Your task to perform on an android device: turn on data saver in the chrome app Image 0: 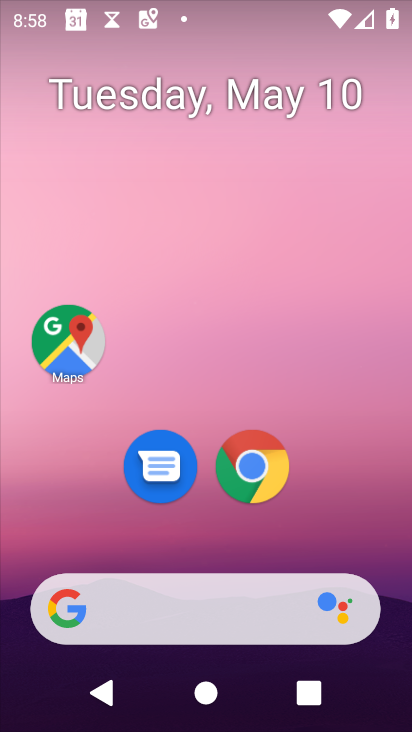
Step 0: click (252, 473)
Your task to perform on an android device: turn on data saver in the chrome app Image 1: 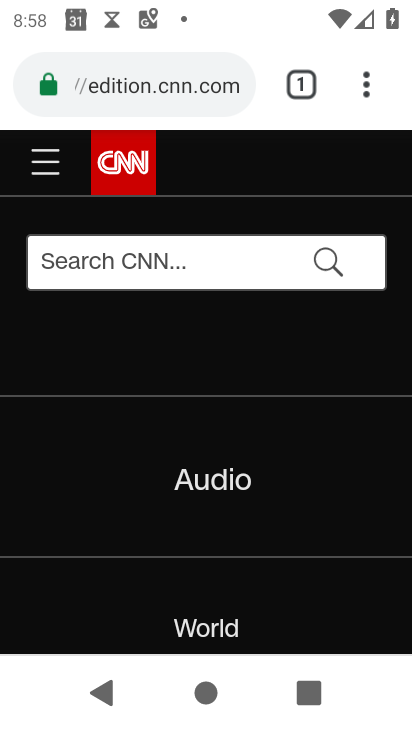
Step 1: click (368, 79)
Your task to perform on an android device: turn on data saver in the chrome app Image 2: 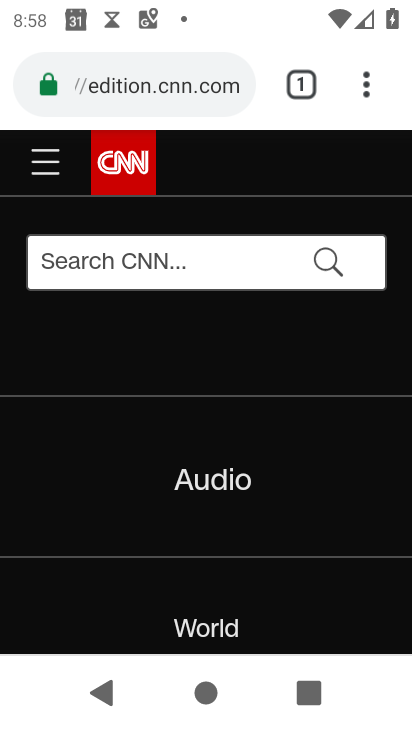
Step 2: click (366, 94)
Your task to perform on an android device: turn on data saver in the chrome app Image 3: 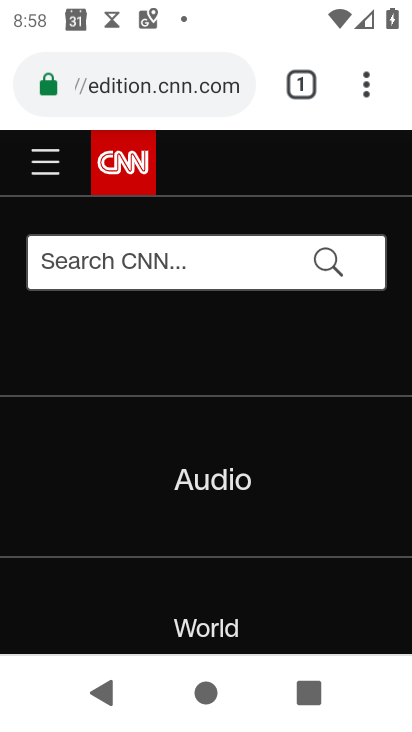
Step 3: click (367, 94)
Your task to perform on an android device: turn on data saver in the chrome app Image 4: 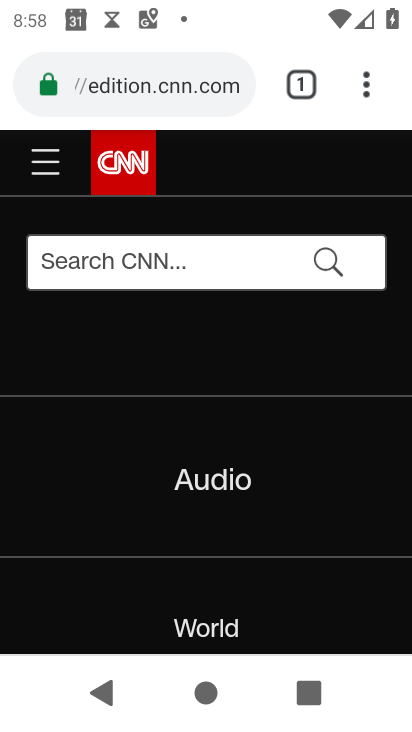
Step 4: click (359, 89)
Your task to perform on an android device: turn on data saver in the chrome app Image 5: 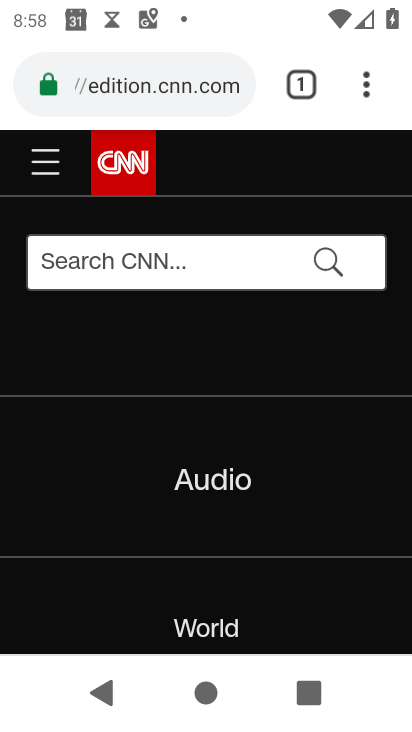
Step 5: click (387, 63)
Your task to perform on an android device: turn on data saver in the chrome app Image 6: 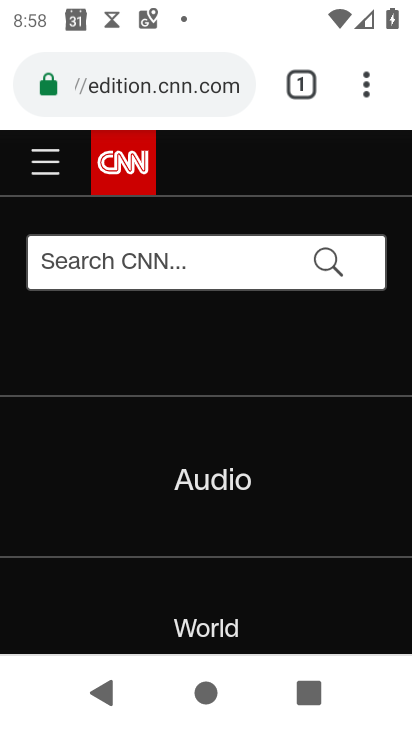
Step 6: click (409, 107)
Your task to perform on an android device: turn on data saver in the chrome app Image 7: 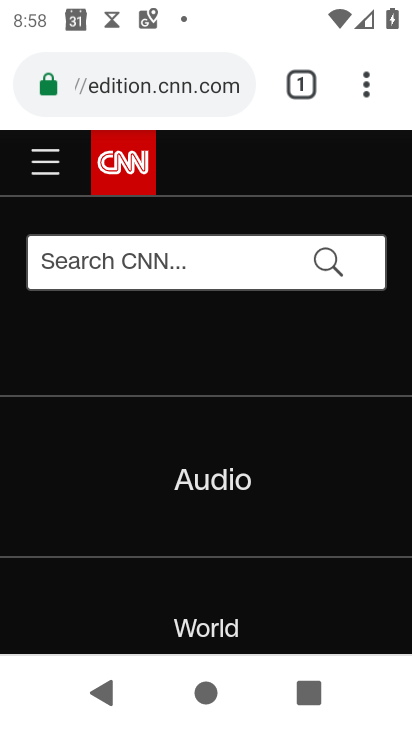
Step 7: click (409, 107)
Your task to perform on an android device: turn on data saver in the chrome app Image 8: 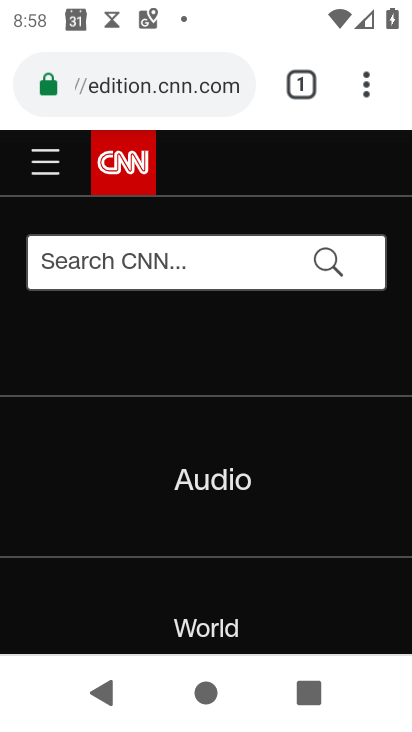
Step 8: click (406, 125)
Your task to perform on an android device: turn on data saver in the chrome app Image 9: 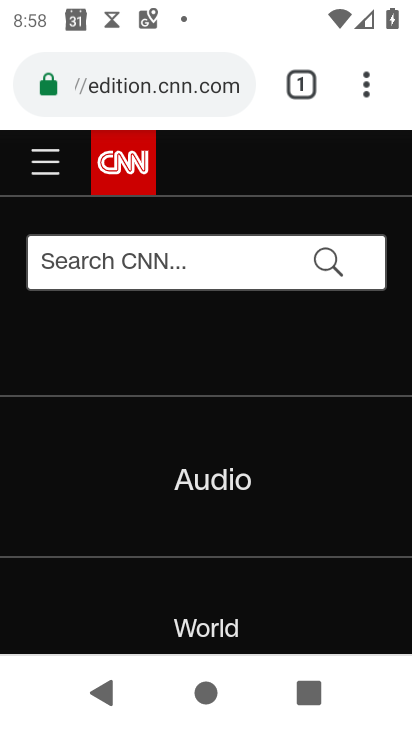
Step 9: click (364, 96)
Your task to perform on an android device: turn on data saver in the chrome app Image 10: 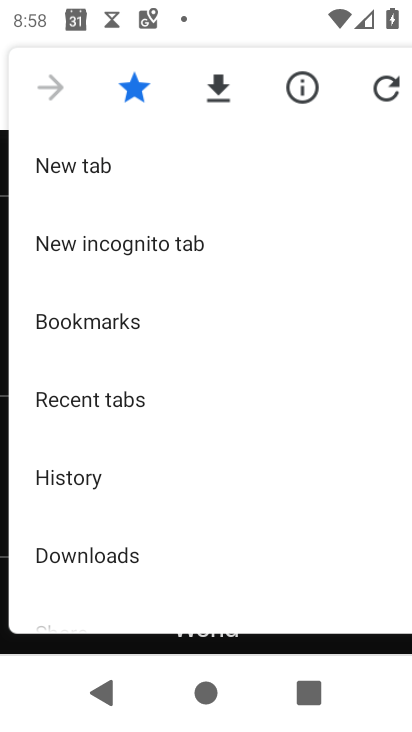
Step 10: drag from (165, 544) to (187, 197)
Your task to perform on an android device: turn on data saver in the chrome app Image 11: 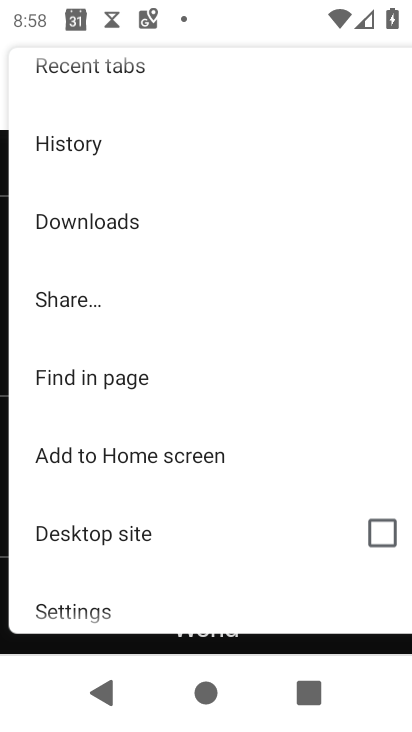
Step 11: drag from (183, 553) to (231, 180)
Your task to perform on an android device: turn on data saver in the chrome app Image 12: 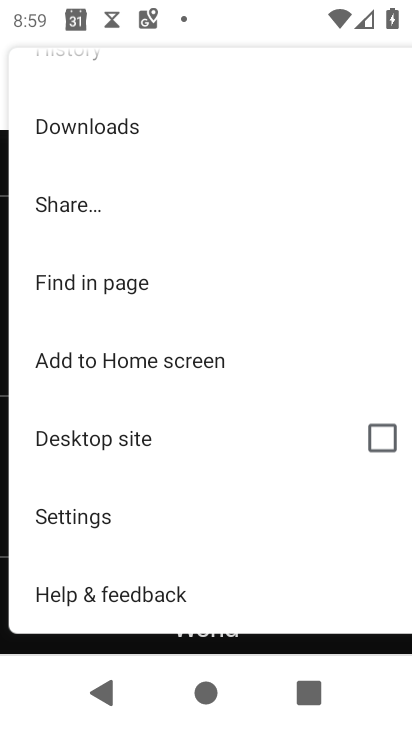
Step 12: click (127, 504)
Your task to perform on an android device: turn on data saver in the chrome app Image 13: 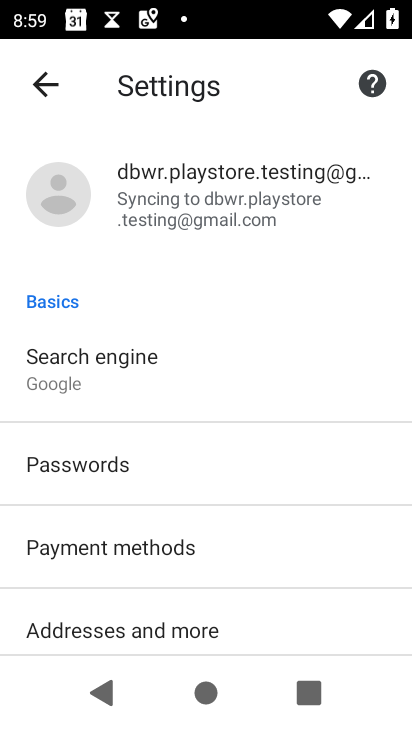
Step 13: drag from (202, 585) to (233, 437)
Your task to perform on an android device: turn on data saver in the chrome app Image 14: 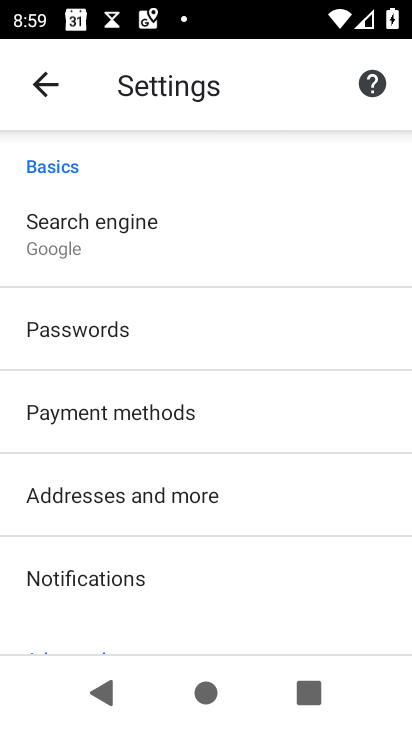
Step 14: drag from (272, 631) to (285, 520)
Your task to perform on an android device: turn on data saver in the chrome app Image 15: 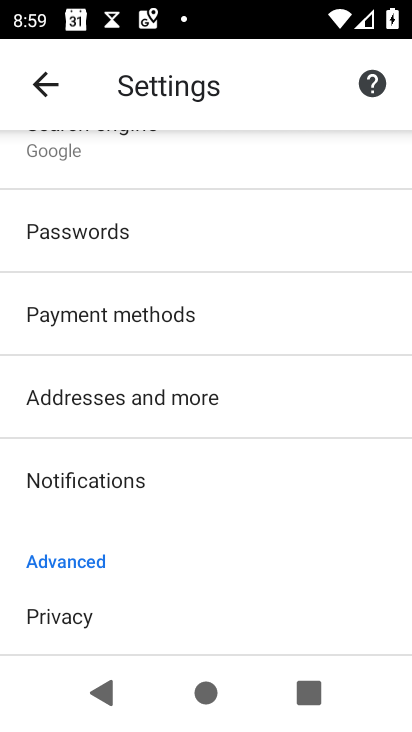
Step 15: drag from (250, 583) to (308, 446)
Your task to perform on an android device: turn on data saver in the chrome app Image 16: 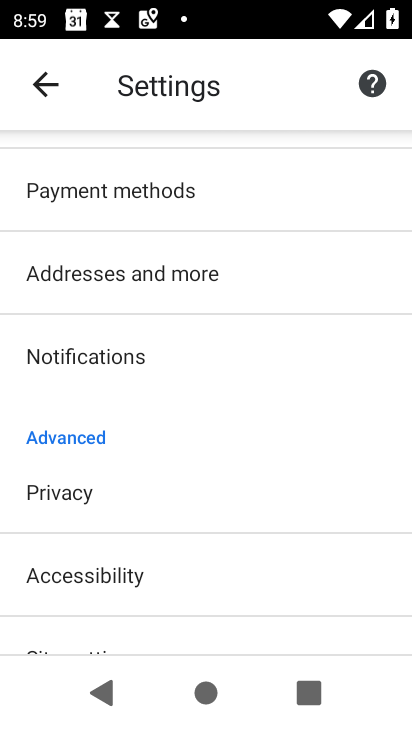
Step 16: drag from (233, 554) to (257, 446)
Your task to perform on an android device: turn on data saver in the chrome app Image 17: 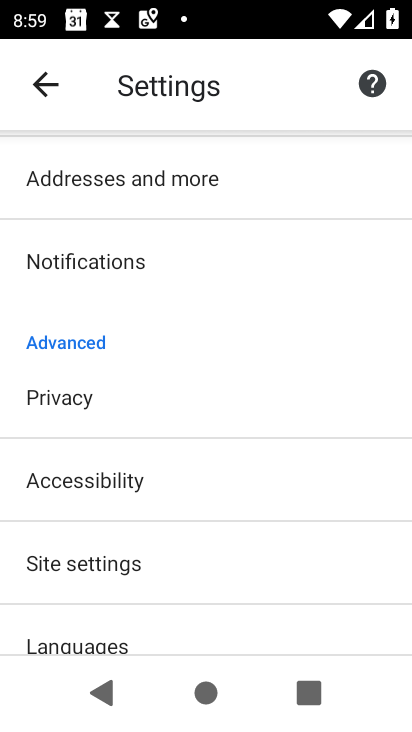
Step 17: drag from (241, 584) to (292, 389)
Your task to perform on an android device: turn on data saver in the chrome app Image 18: 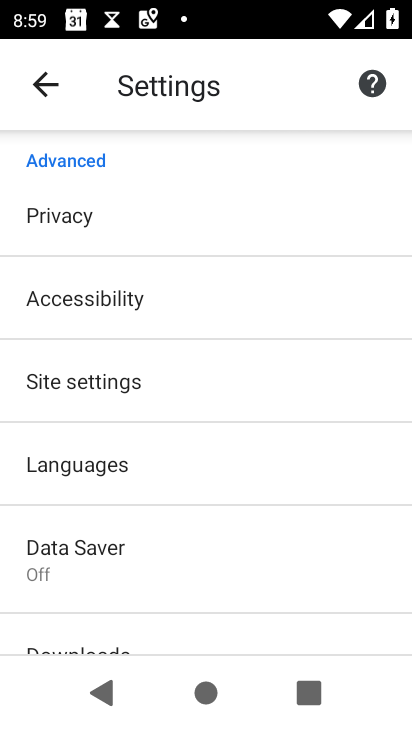
Step 18: click (199, 560)
Your task to perform on an android device: turn on data saver in the chrome app Image 19: 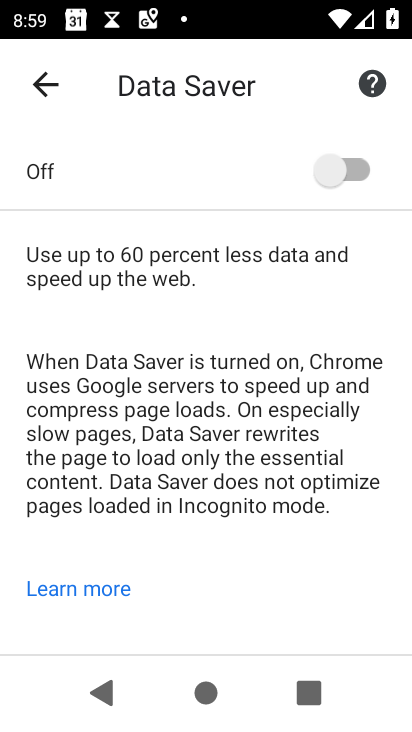
Step 19: click (350, 161)
Your task to perform on an android device: turn on data saver in the chrome app Image 20: 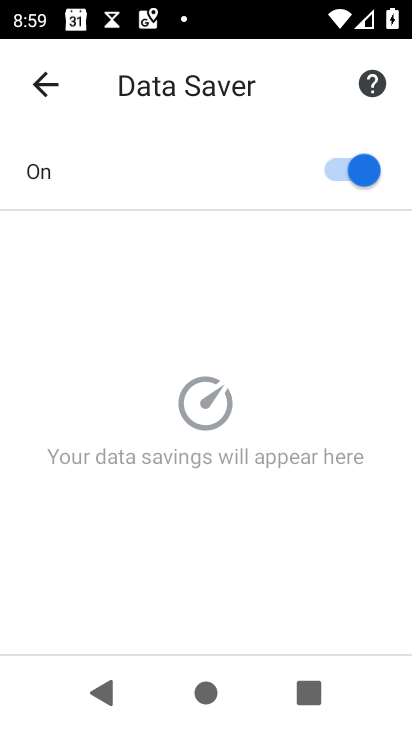
Step 20: task complete